Your task to perform on an android device: check google app version Image 0: 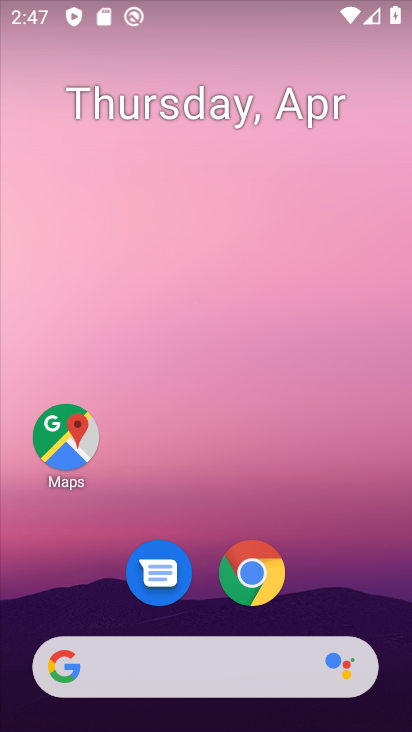
Step 0: drag from (328, 571) to (201, 63)
Your task to perform on an android device: check google app version Image 1: 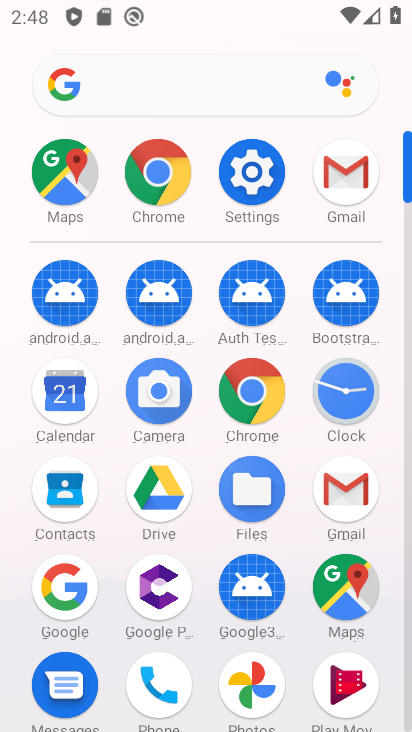
Step 1: click (53, 586)
Your task to perform on an android device: check google app version Image 2: 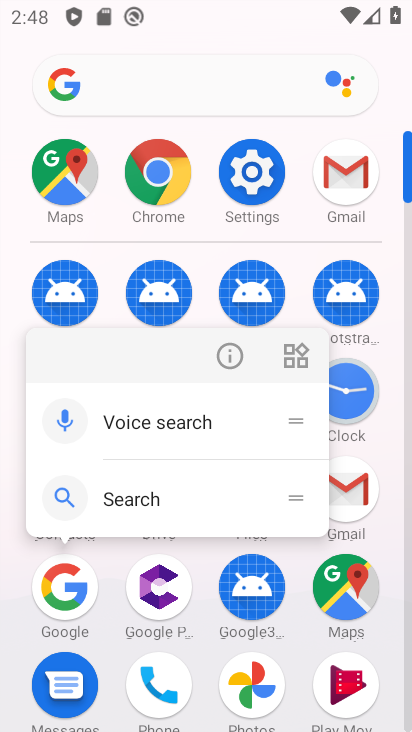
Step 2: click (224, 353)
Your task to perform on an android device: check google app version Image 3: 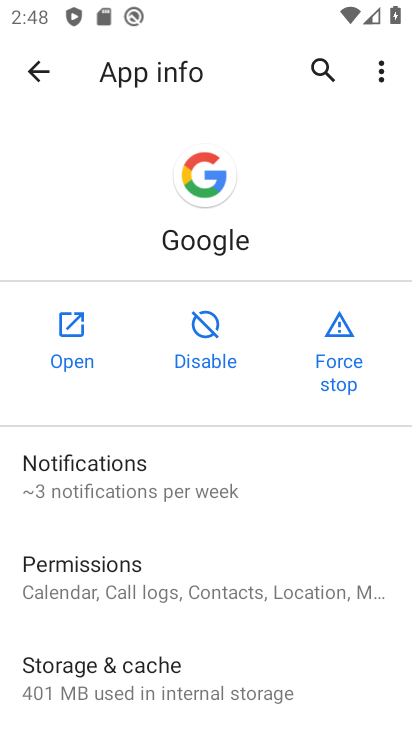
Step 3: drag from (200, 670) to (242, 151)
Your task to perform on an android device: check google app version Image 4: 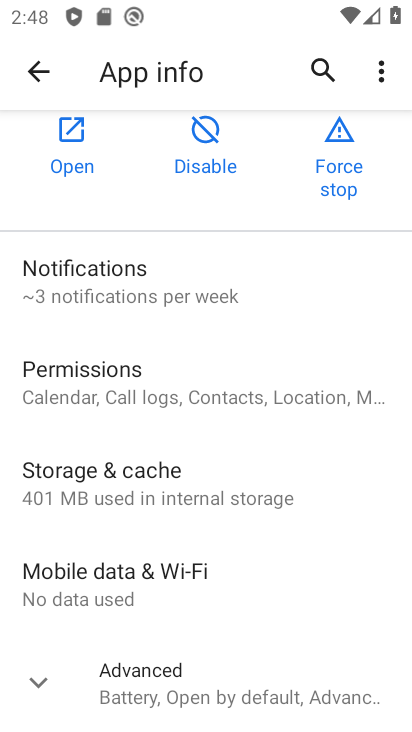
Step 4: click (91, 672)
Your task to perform on an android device: check google app version Image 5: 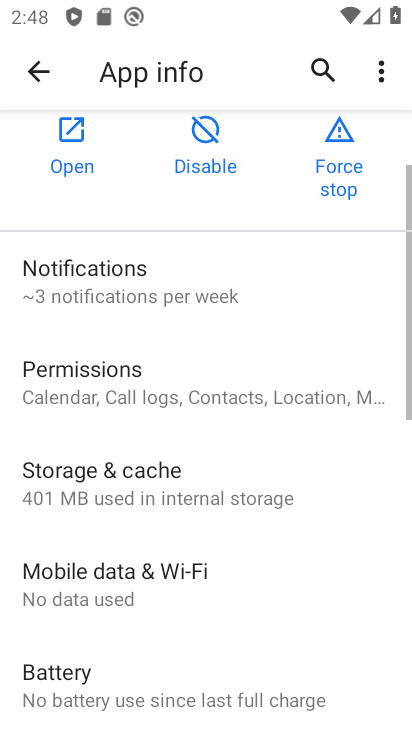
Step 5: task complete